Your task to perform on an android device: Open Youtube and go to "Your channel" Image 0: 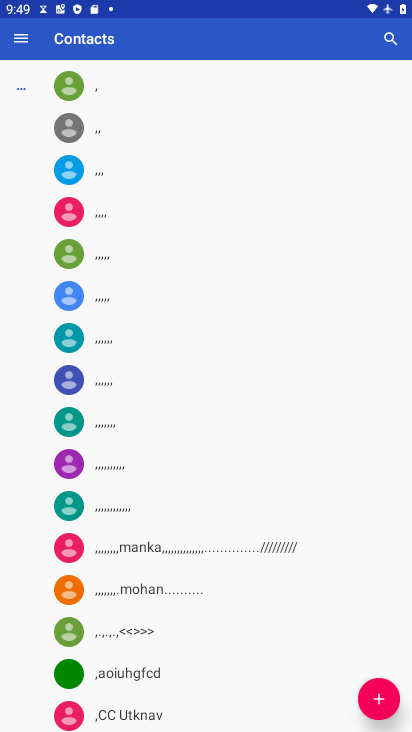
Step 0: press home button
Your task to perform on an android device: Open Youtube and go to "Your channel" Image 1: 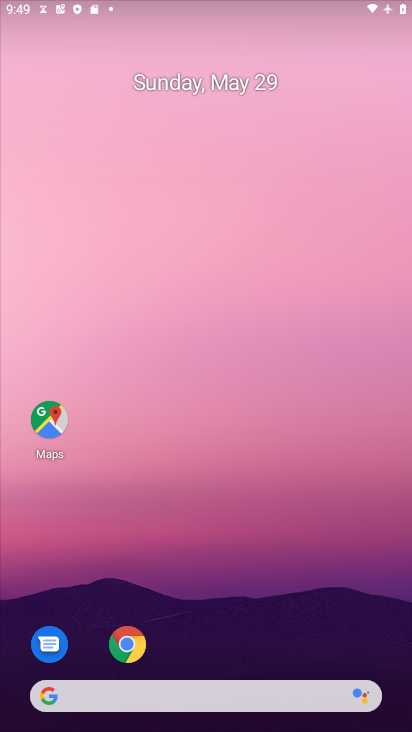
Step 1: drag from (324, 590) to (308, 314)
Your task to perform on an android device: Open Youtube and go to "Your channel" Image 2: 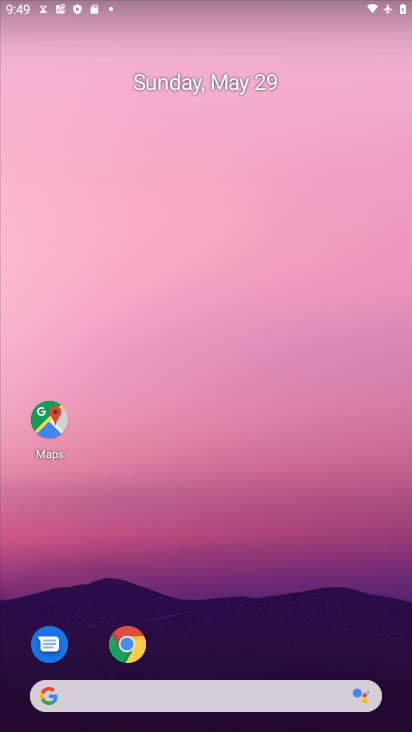
Step 2: drag from (189, 622) to (230, 101)
Your task to perform on an android device: Open Youtube and go to "Your channel" Image 3: 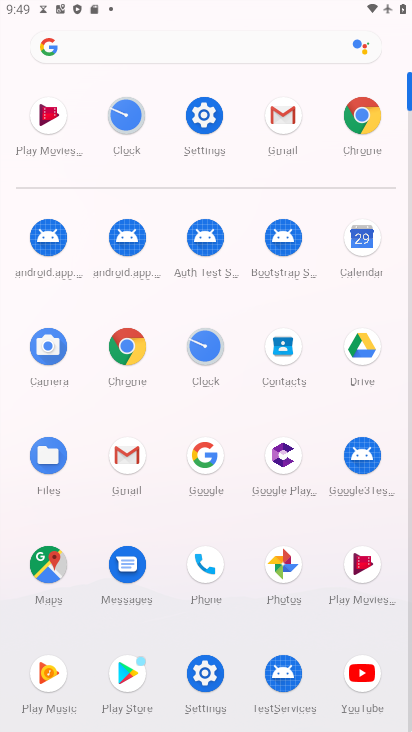
Step 3: click (361, 673)
Your task to perform on an android device: Open Youtube and go to "Your channel" Image 4: 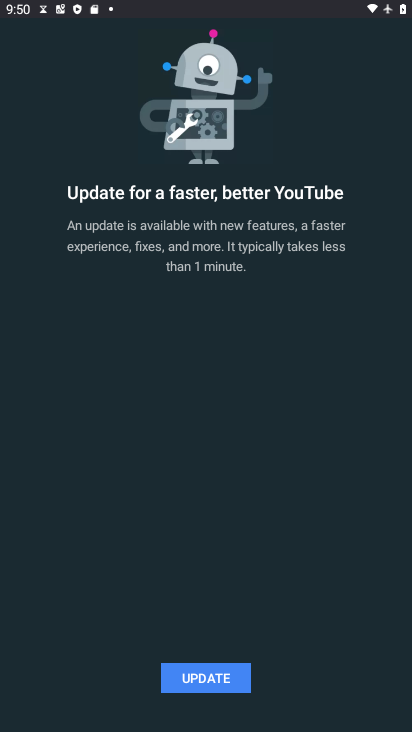
Step 4: task complete